Your task to perform on an android device: Go to calendar. Show me events next week Image 0: 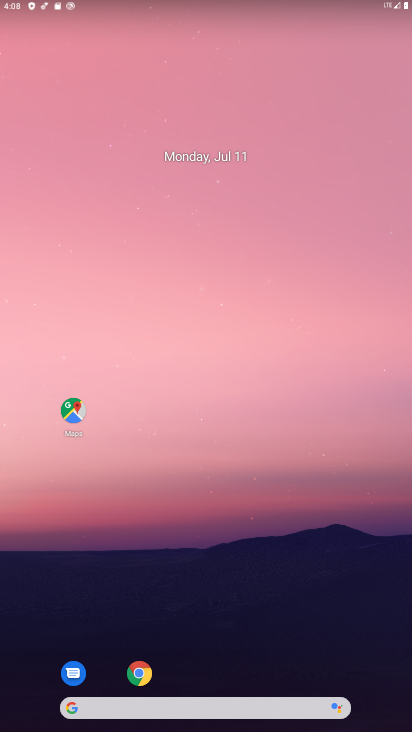
Step 0: drag from (305, 534) to (279, 49)
Your task to perform on an android device: Go to calendar. Show me events next week Image 1: 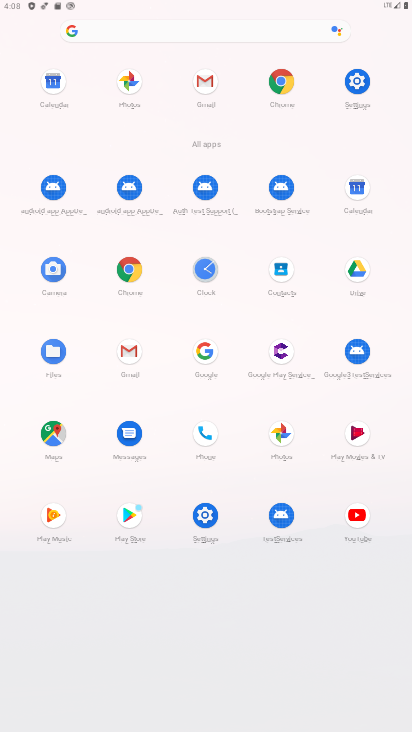
Step 1: click (54, 80)
Your task to perform on an android device: Go to calendar. Show me events next week Image 2: 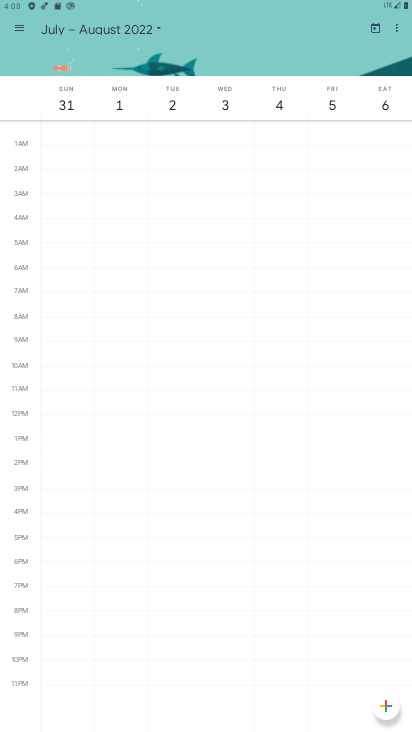
Step 2: click (100, 23)
Your task to perform on an android device: Go to calendar. Show me events next week Image 3: 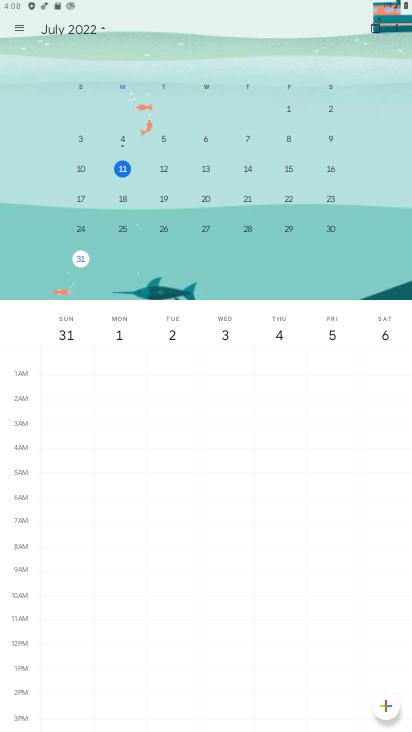
Step 3: drag from (59, 161) to (406, 191)
Your task to perform on an android device: Go to calendar. Show me events next week Image 4: 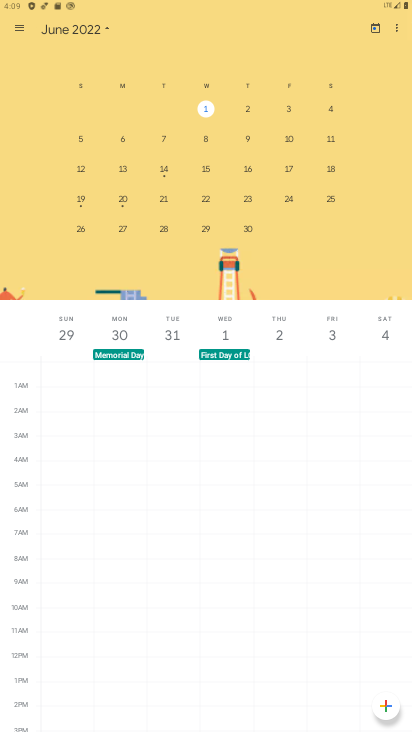
Step 4: click (123, 137)
Your task to perform on an android device: Go to calendar. Show me events next week Image 5: 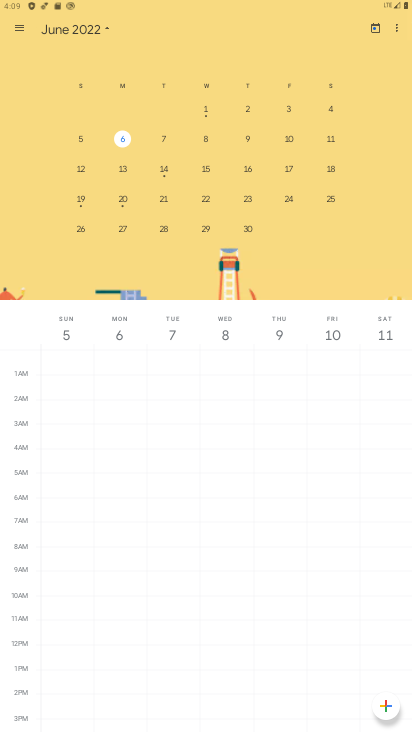
Step 5: drag from (303, 454) to (312, 237)
Your task to perform on an android device: Go to calendar. Show me events next week Image 6: 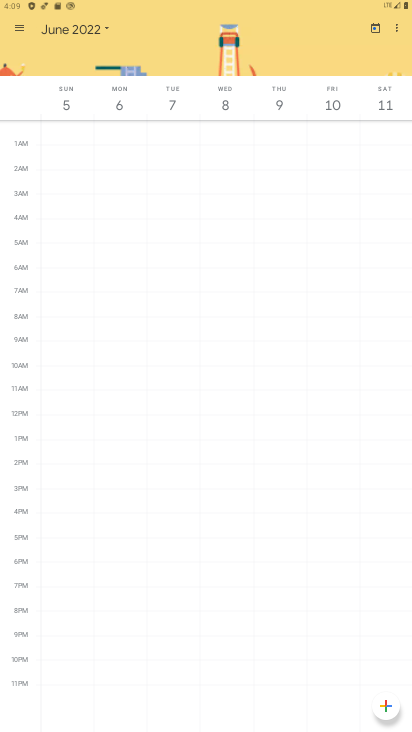
Step 6: drag from (298, 247) to (272, 488)
Your task to perform on an android device: Go to calendar. Show me events next week Image 7: 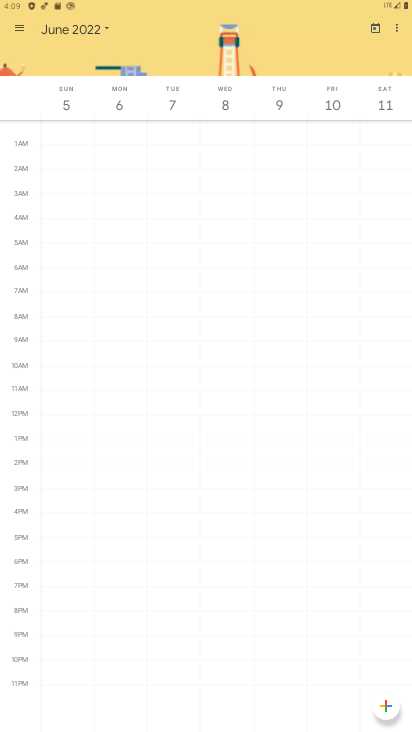
Step 7: click (174, 48)
Your task to perform on an android device: Go to calendar. Show me events next week Image 8: 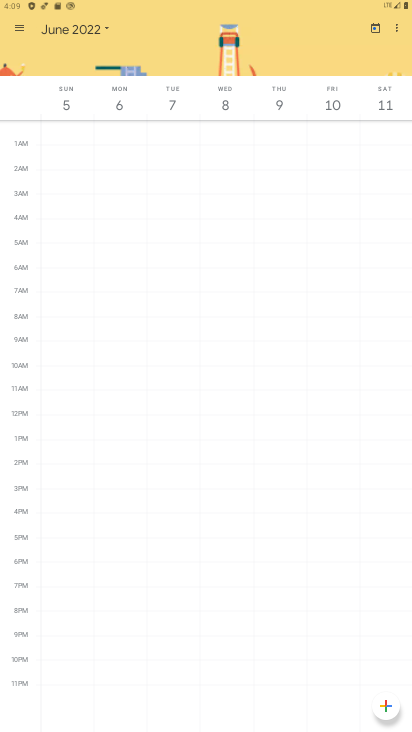
Step 8: drag from (219, 53) to (230, 434)
Your task to perform on an android device: Go to calendar. Show me events next week Image 9: 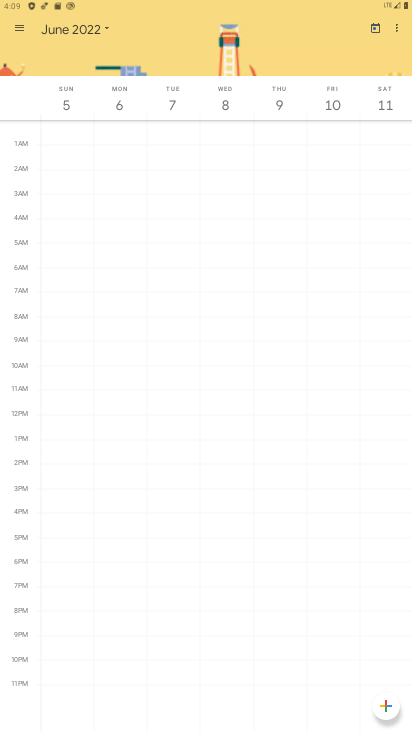
Step 9: click (90, 28)
Your task to perform on an android device: Go to calendar. Show me events next week Image 10: 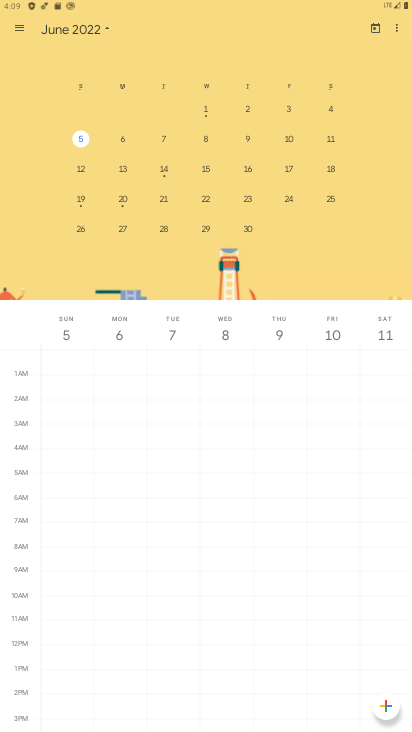
Step 10: drag from (324, 158) to (63, 149)
Your task to perform on an android device: Go to calendar. Show me events next week Image 11: 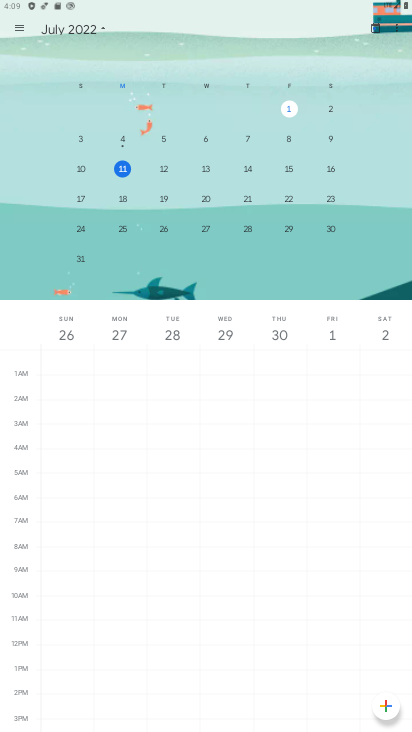
Step 11: click (124, 201)
Your task to perform on an android device: Go to calendar. Show me events next week Image 12: 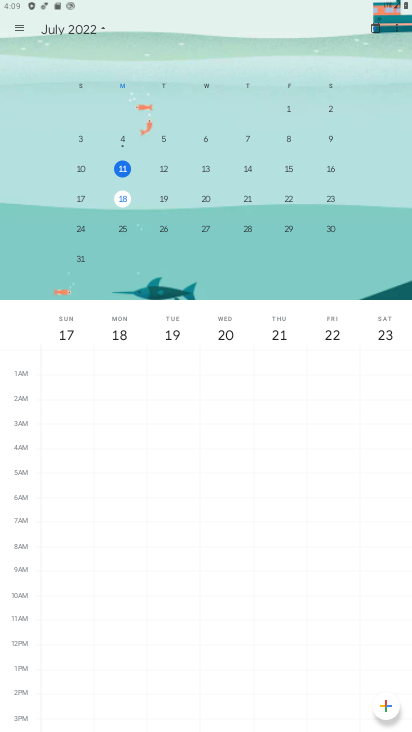
Step 12: task complete